Your task to perform on an android device: turn off wifi Image 0: 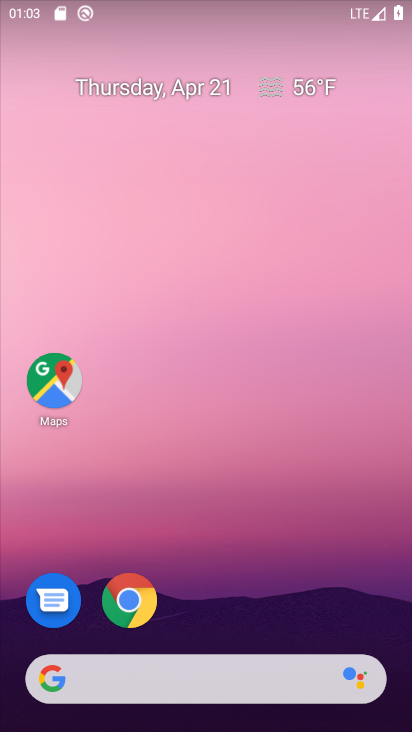
Step 0: drag from (322, 531) to (311, 78)
Your task to perform on an android device: turn off wifi Image 1: 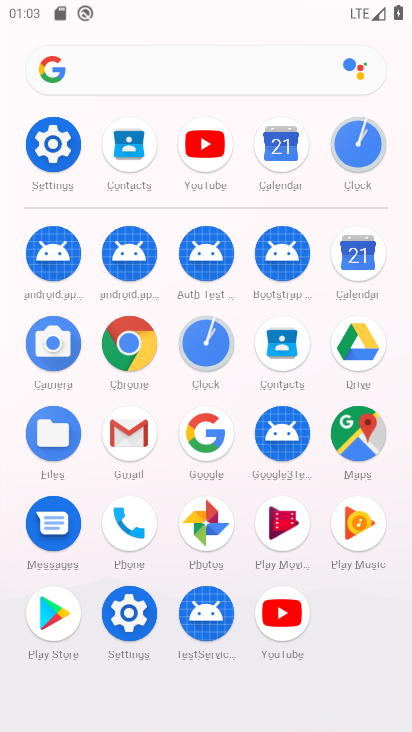
Step 1: click (62, 146)
Your task to perform on an android device: turn off wifi Image 2: 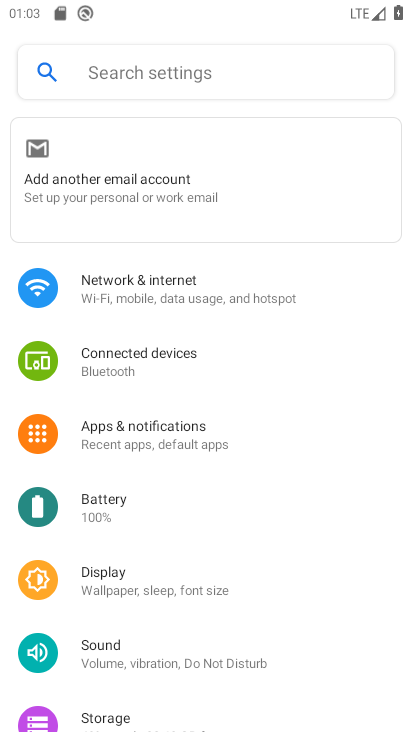
Step 2: click (176, 279)
Your task to perform on an android device: turn off wifi Image 3: 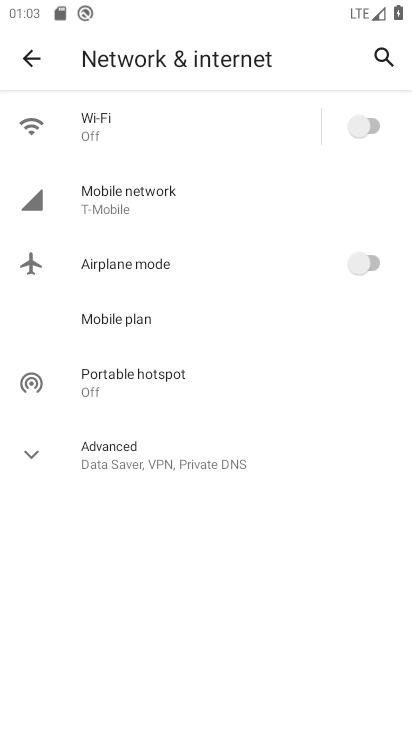
Step 3: task complete